Your task to perform on an android device: Go to Android settings Image 0: 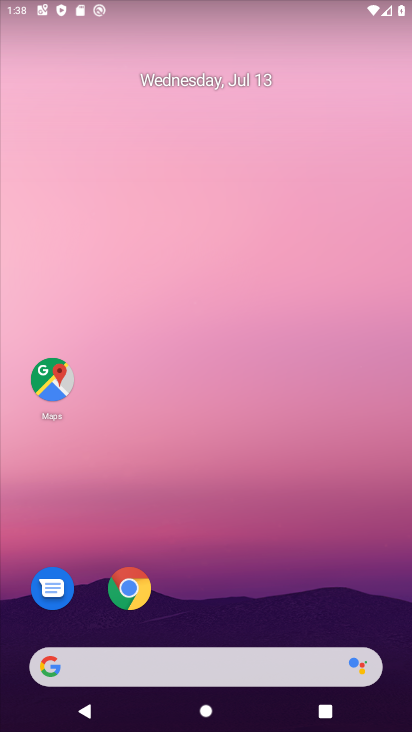
Step 0: drag from (202, 651) to (322, 262)
Your task to perform on an android device: Go to Android settings Image 1: 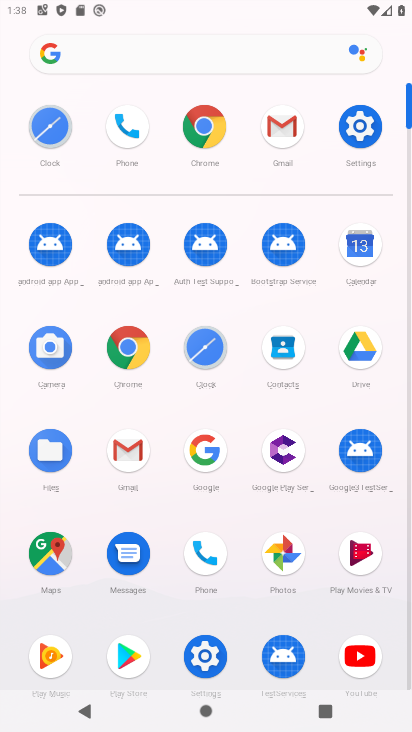
Step 1: click (368, 137)
Your task to perform on an android device: Go to Android settings Image 2: 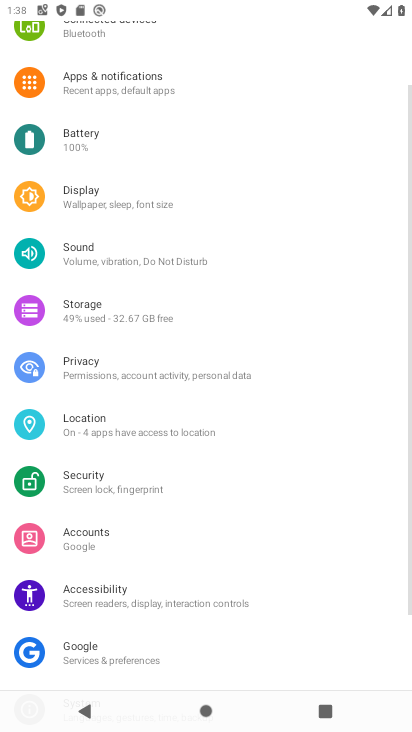
Step 2: task complete